Your task to perform on an android device: toggle priority inbox in the gmail app Image 0: 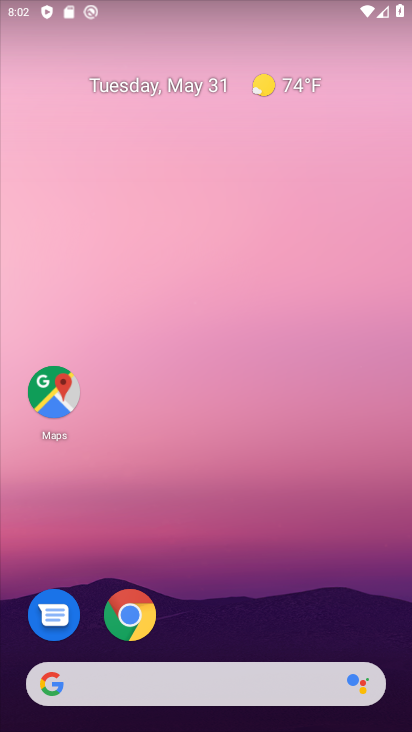
Step 0: drag from (143, 690) to (217, 168)
Your task to perform on an android device: toggle priority inbox in the gmail app Image 1: 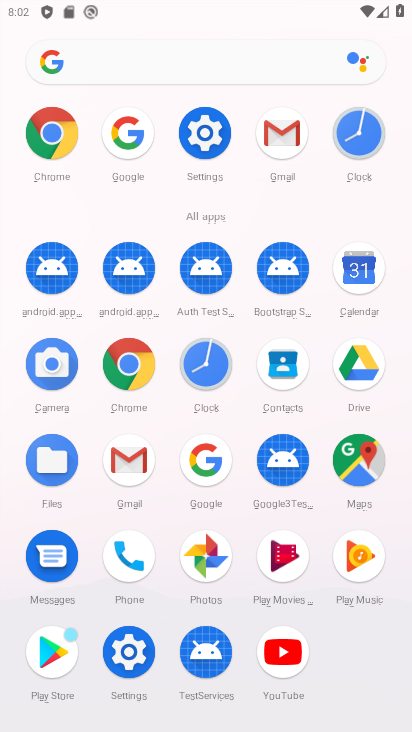
Step 1: click (282, 143)
Your task to perform on an android device: toggle priority inbox in the gmail app Image 2: 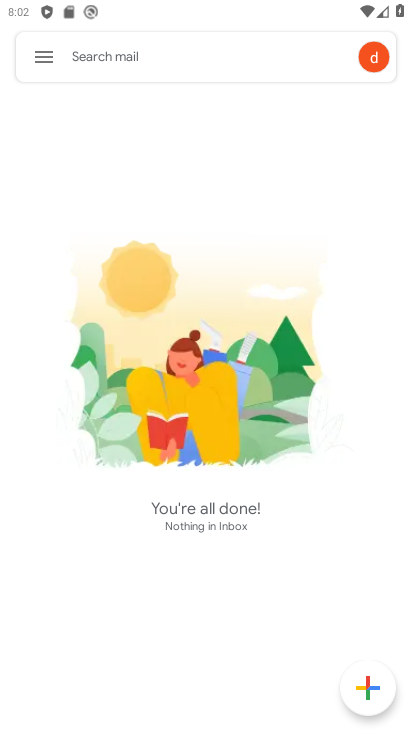
Step 2: click (39, 53)
Your task to perform on an android device: toggle priority inbox in the gmail app Image 3: 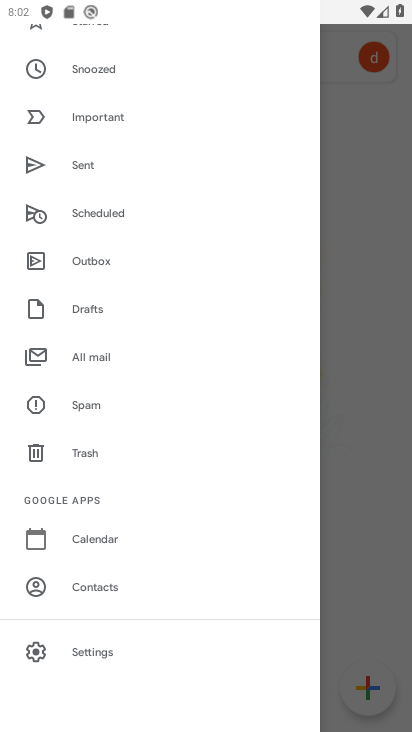
Step 3: click (76, 652)
Your task to perform on an android device: toggle priority inbox in the gmail app Image 4: 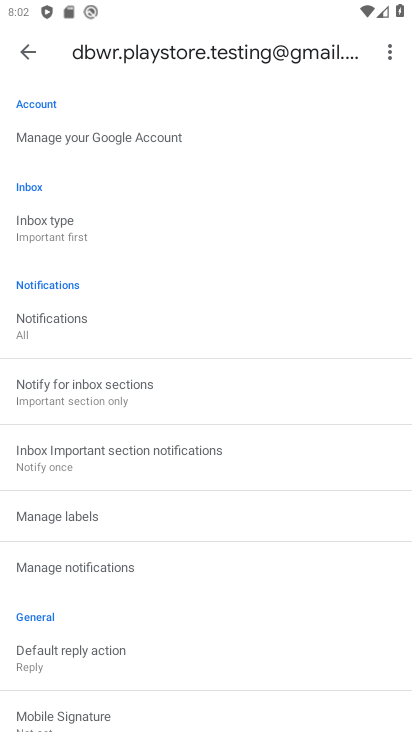
Step 4: click (69, 232)
Your task to perform on an android device: toggle priority inbox in the gmail app Image 5: 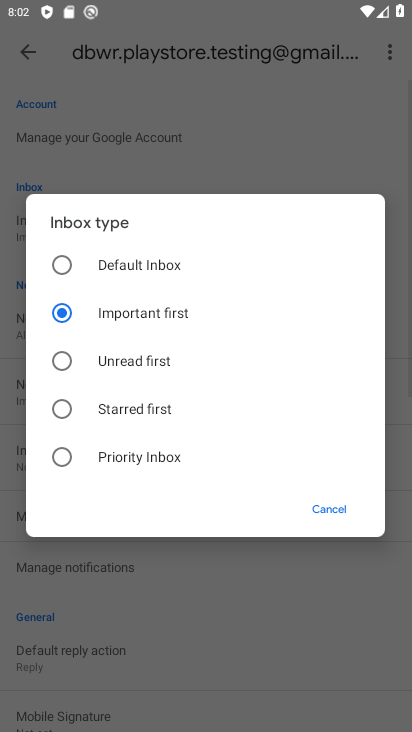
Step 5: click (57, 458)
Your task to perform on an android device: toggle priority inbox in the gmail app Image 6: 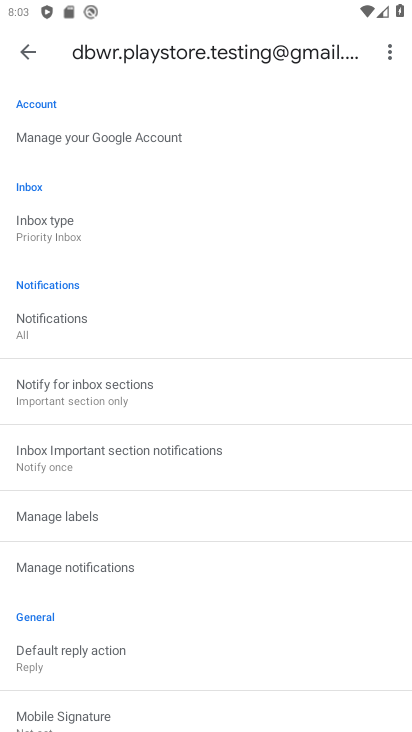
Step 6: task complete